Your task to perform on an android device: What's on my calendar tomorrow? Image 0: 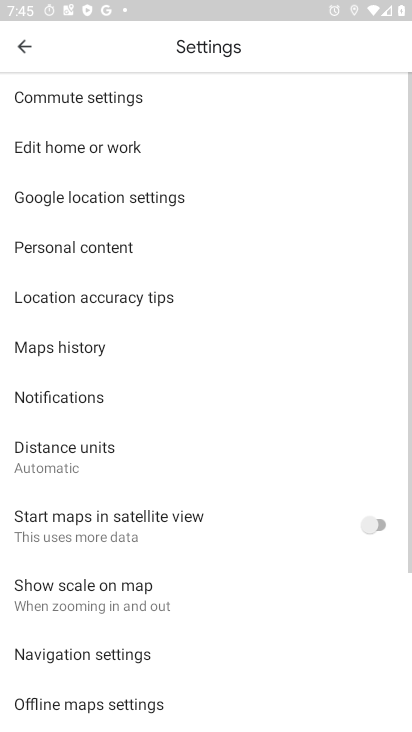
Step 0: press home button
Your task to perform on an android device: What's on my calendar tomorrow? Image 1: 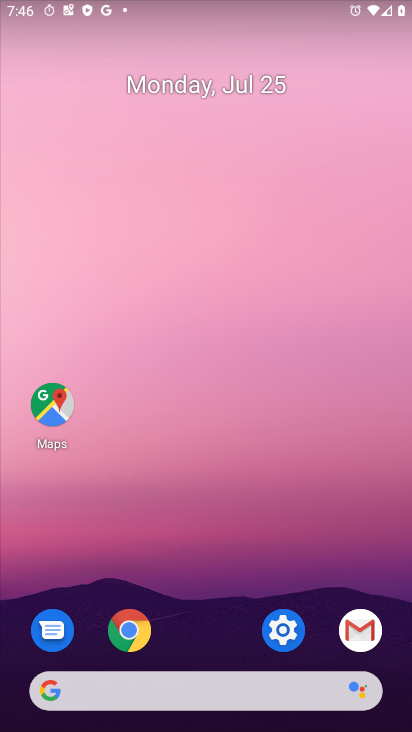
Step 1: drag from (252, 710) to (280, 162)
Your task to perform on an android device: What's on my calendar tomorrow? Image 2: 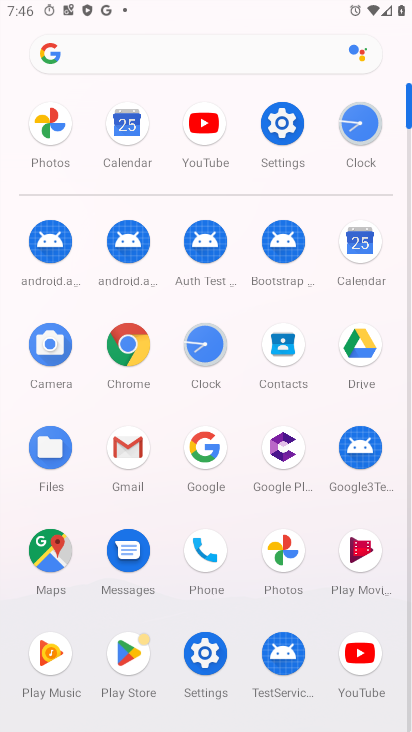
Step 2: click (367, 261)
Your task to perform on an android device: What's on my calendar tomorrow? Image 3: 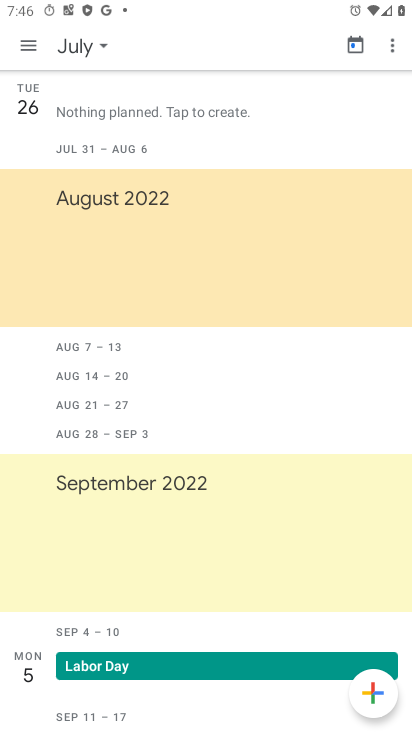
Step 3: task complete